Your task to perform on an android device: See recent photos Image 0: 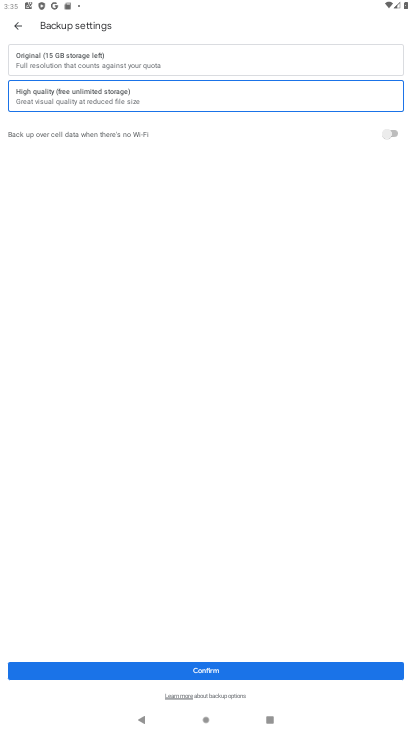
Step 0: click (202, 673)
Your task to perform on an android device: See recent photos Image 1: 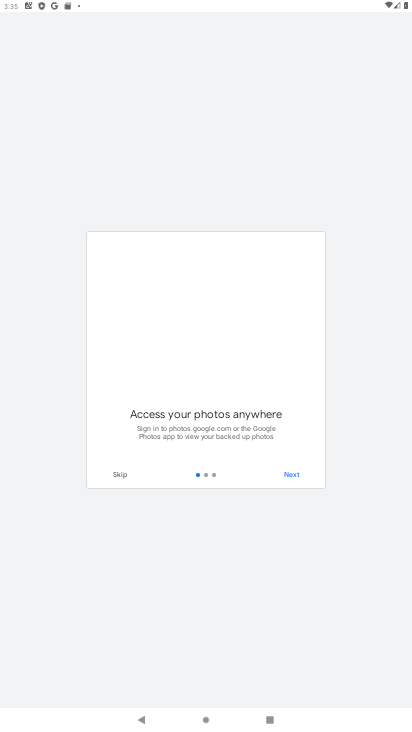
Step 1: click (292, 472)
Your task to perform on an android device: See recent photos Image 2: 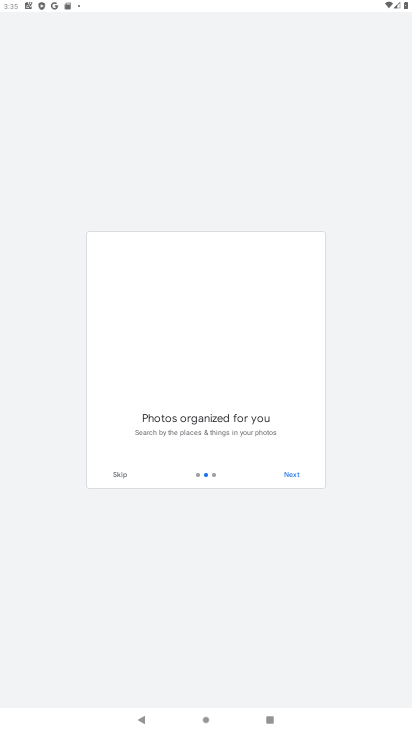
Step 2: click (292, 472)
Your task to perform on an android device: See recent photos Image 3: 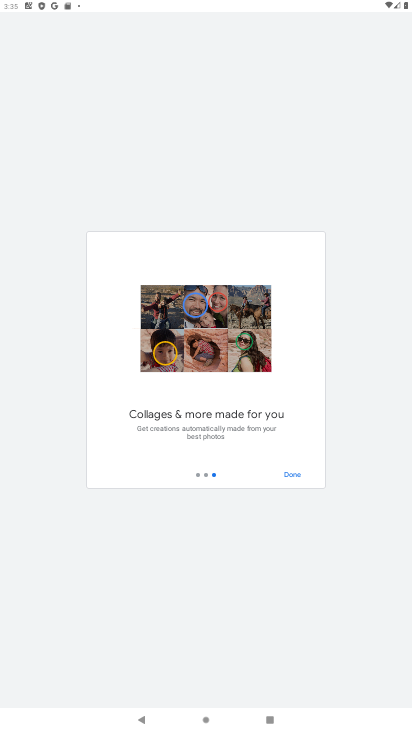
Step 3: click (292, 472)
Your task to perform on an android device: See recent photos Image 4: 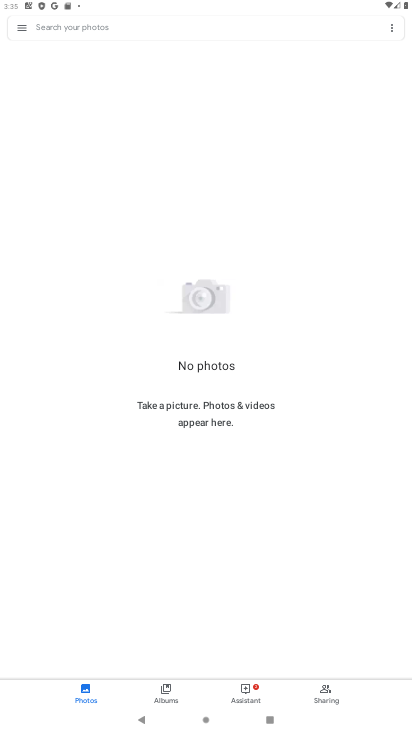
Step 4: task complete